Your task to perform on an android device: Turn on the flashlight Image 0: 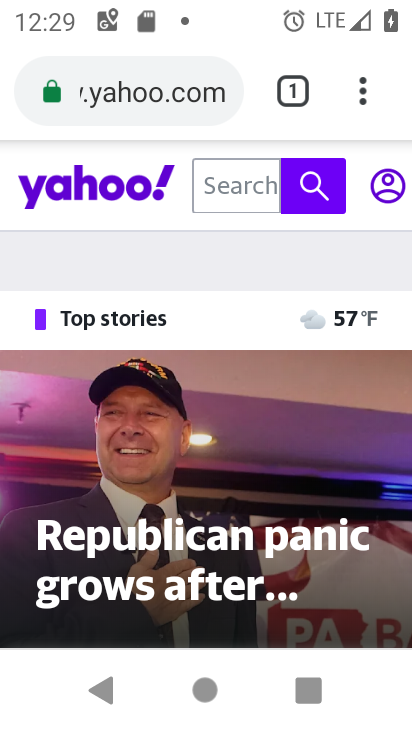
Step 0: press home button
Your task to perform on an android device: Turn on the flashlight Image 1: 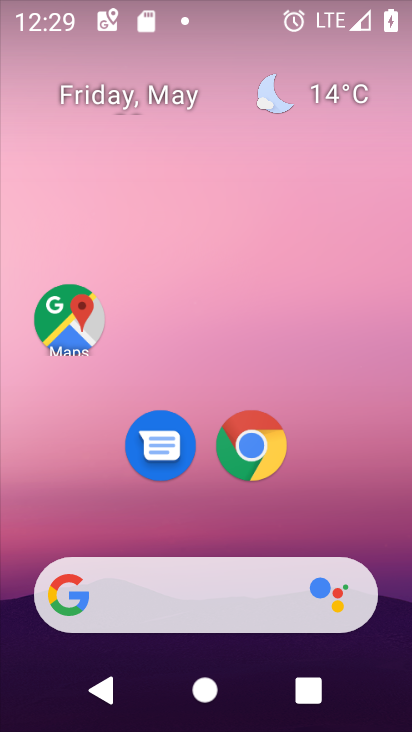
Step 1: drag from (102, 464) to (237, 225)
Your task to perform on an android device: Turn on the flashlight Image 2: 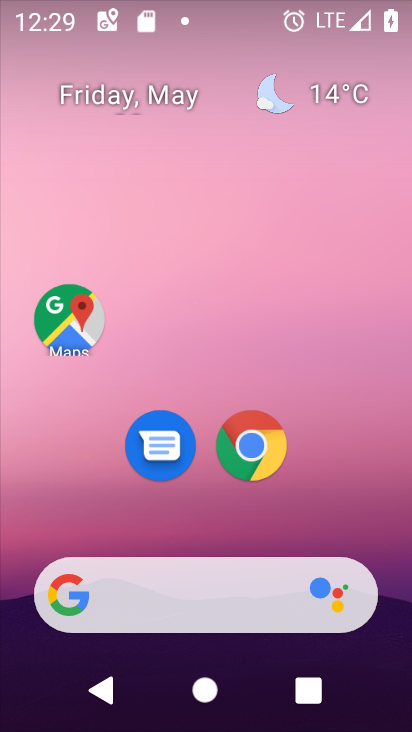
Step 2: drag from (3, 420) to (216, 19)
Your task to perform on an android device: Turn on the flashlight Image 3: 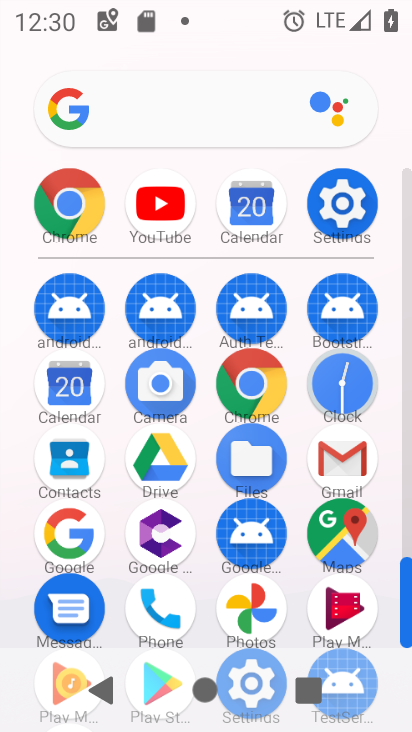
Step 3: click (336, 230)
Your task to perform on an android device: Turn on the flashlight Image 4: 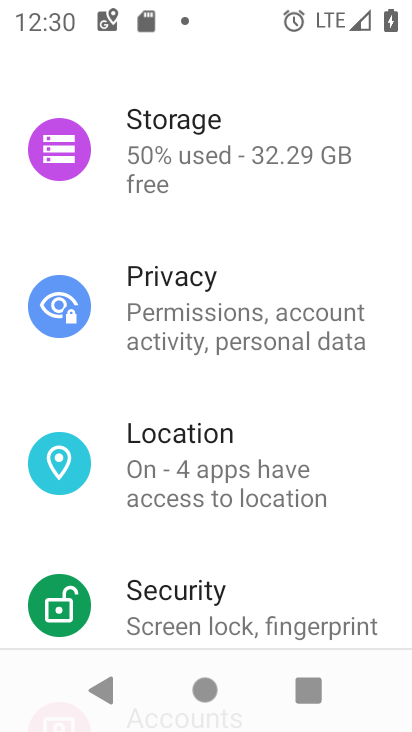
Step 4: task complete